Your task to perform on an android device: Open Maps and search for coffee Image 0: 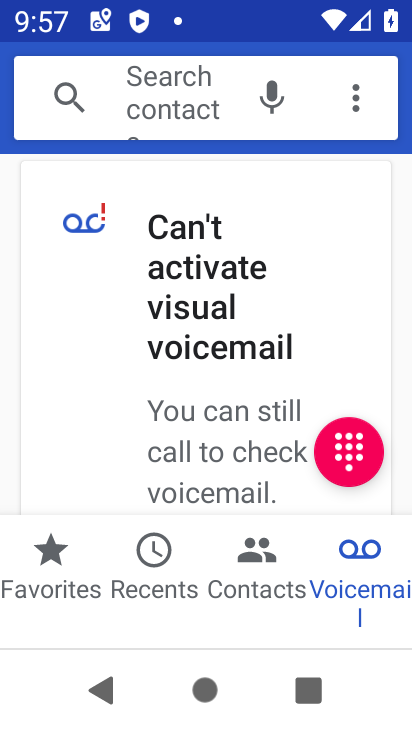
Step 0: press back button
Your task to perform on an android device: Open Maps and search for coffee Image 1: 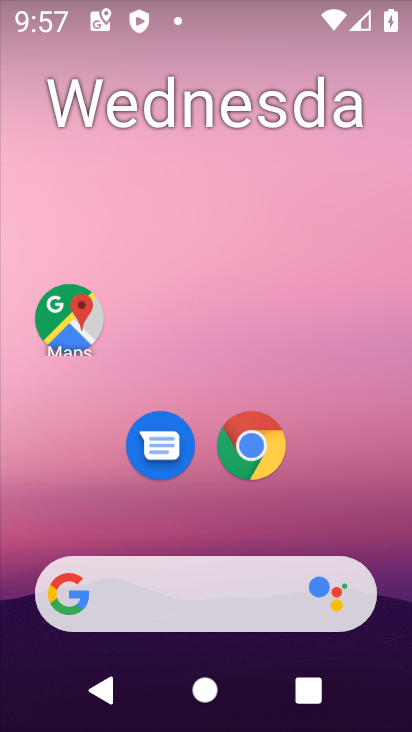
Step 1: click (59, 312)
Your task to perform on an android device: Open Maps and search for coffee Image 2: 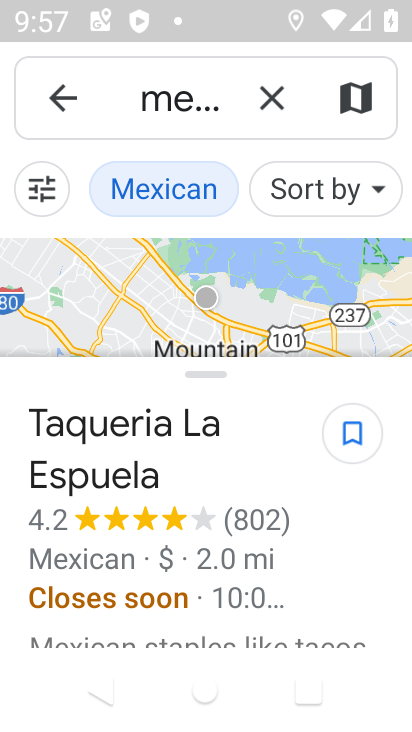
Step 2: click (273, 84)
Your task to perform on an android device: Open Maps and search for coffee Image 3: 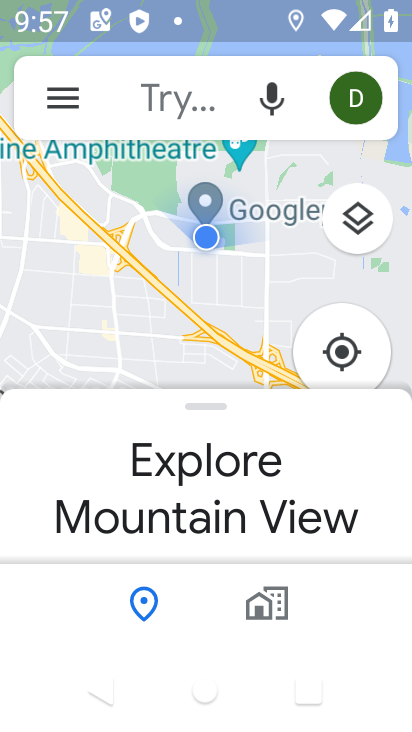
Step 3: click (141, 92)
Your task to perform on an android device: Open Maps and search for coffee Image 4: 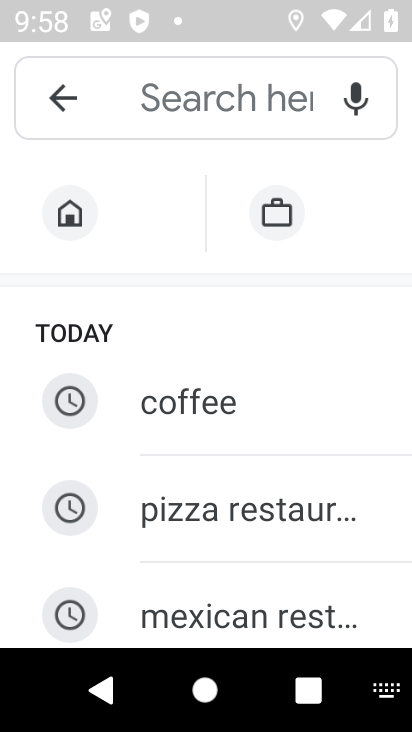
Step 4: click (232, 391)
Your task to perform on an android device: Open Maps and search for coffee Image 5: 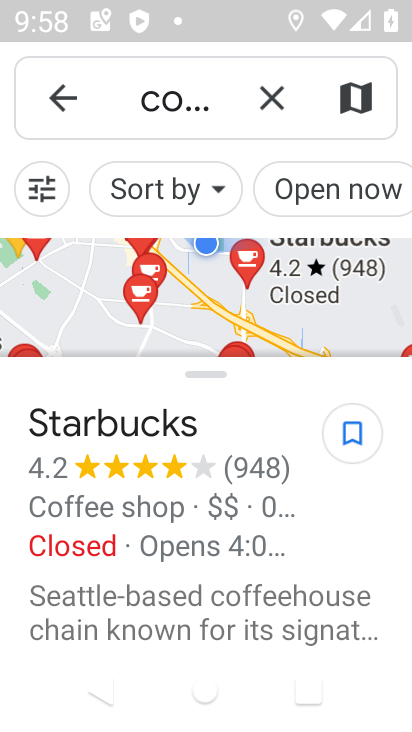
Step 5: task complete